Your task to perform on an android device: Open the calendar app, open the side menu, and click the "Day" option Image 0: 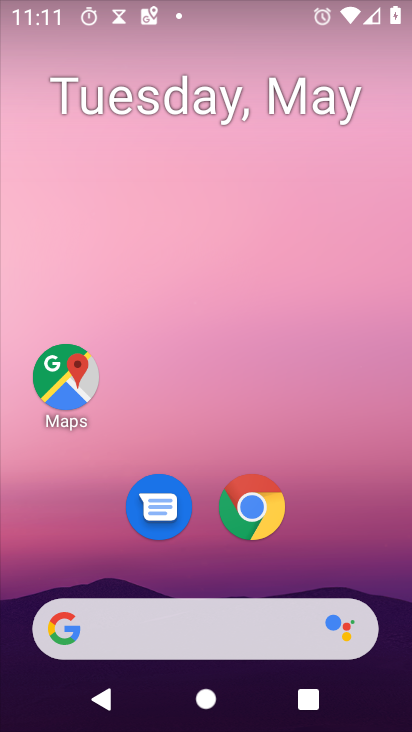
Step 0: drag from (19, 597) to (246, 149)
Your task to perform on an android device: Open the calendar app, open the side menu, and click the "Day" option Image 1: 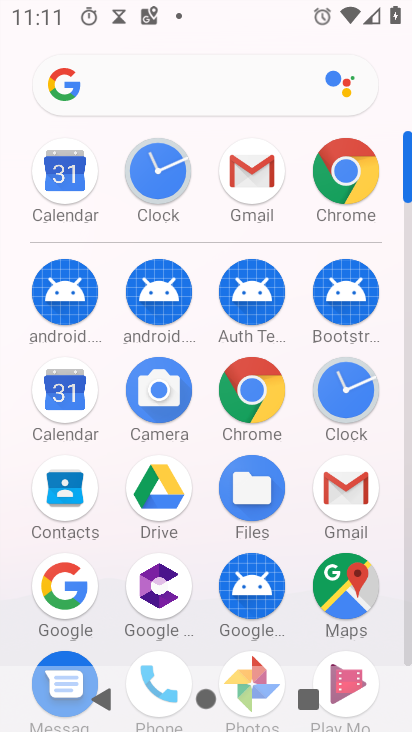
Step 1: click (59, 399)
Your task to perform on an android device: Open the calendar app, open the side menu, and click the "Day" option Image 2: 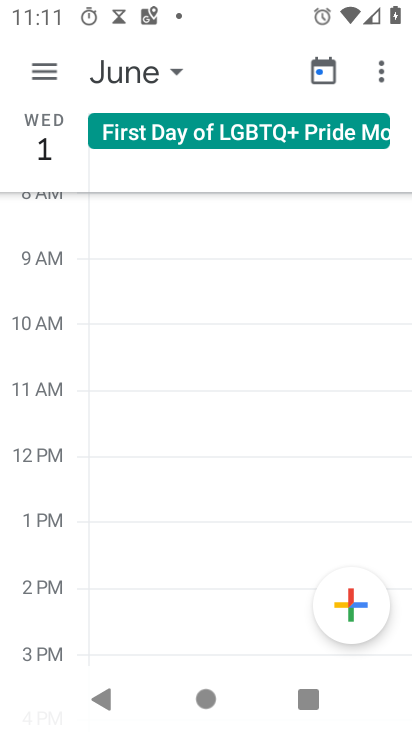
Step 2: click (37, 75)
Your task to perform on an android device: Open the calendar app, open the side menu, and click the "Day" option Image 3: 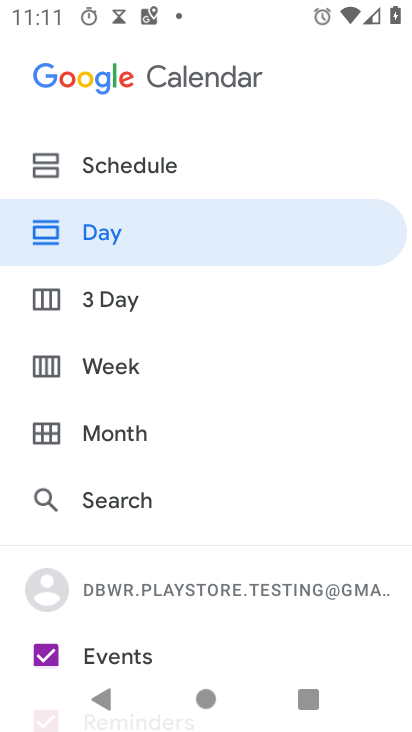
Step 3: click (112, 226)
Your task to perform on an android device: Open the calendar app, open the side menu, and click the "Day" option Image 4: 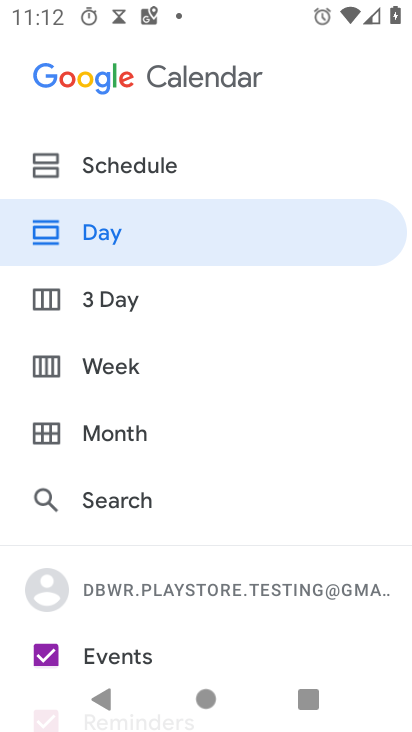
Step 4: task complete